Your task to perform on an android device: turn on showing notifications on the lock screen Image 0: 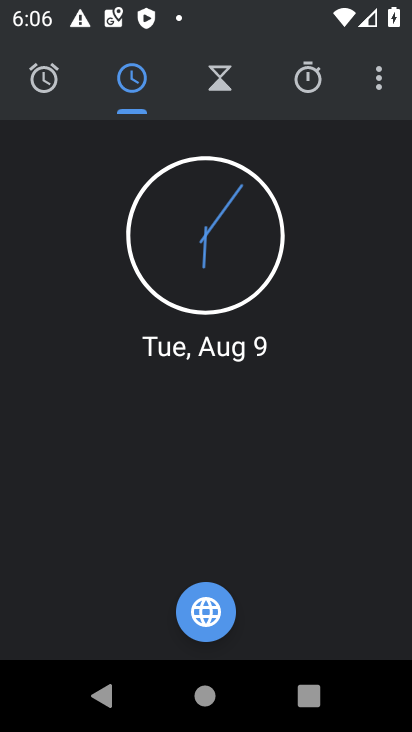
Step 0: drag from (257, 10) to (284, 133)
Your task to perform on an android device: turn on showing notifications on the lock screen Image 1: 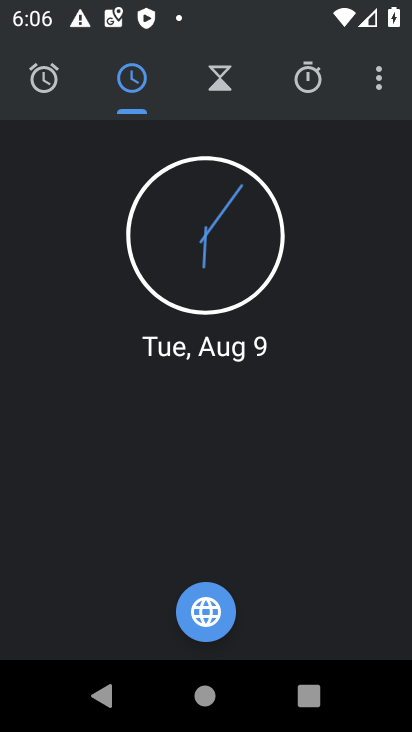
Step 1: click (206, 693)
Your task to perform on an android device: turn on showing notifications on the lock screen Image 2: 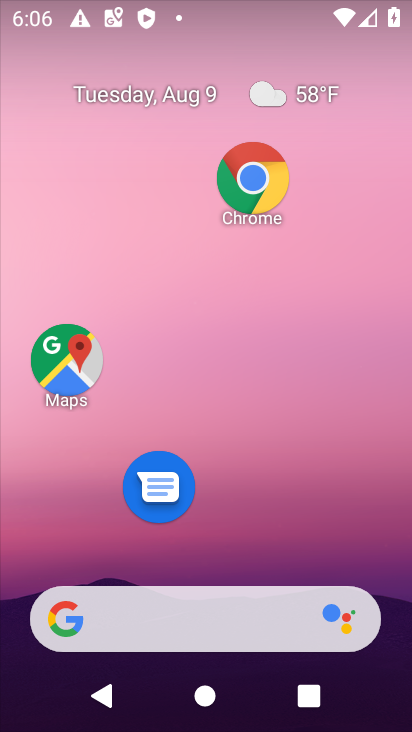
Step 2: drag from (206, 552) to (232, 103)
Your task to perform on an android device: turn on showing notifications on the lock screen Image 3: 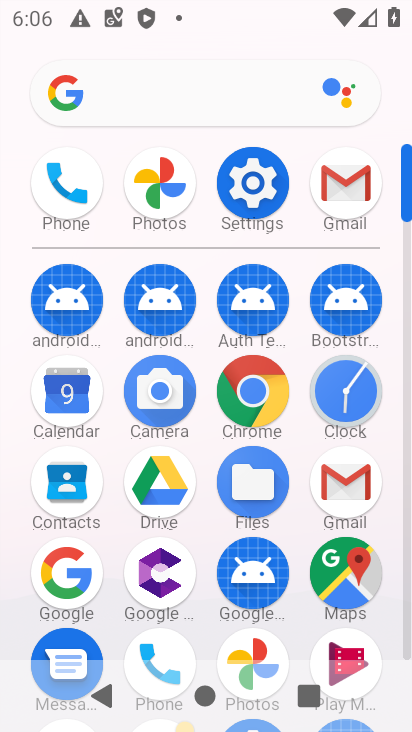
Step 3: click (261, 184)
Your task to perform on an android device: turn on showing notifications on the lock screen Image 4: 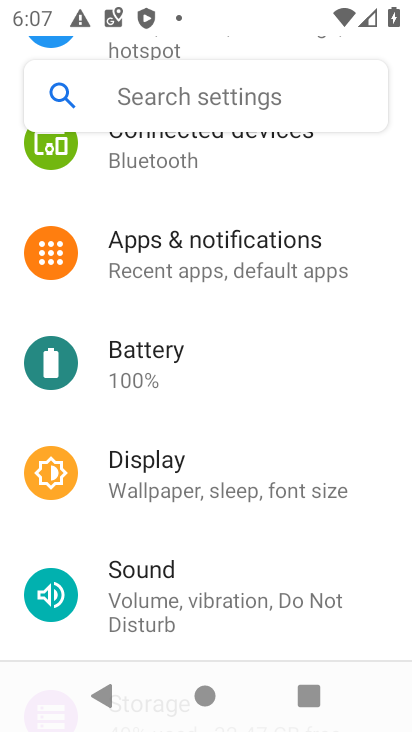
Step 4: click (253, 238)
Your task to perform on an android device: turn on showing notifications on the lock screen Image 5: 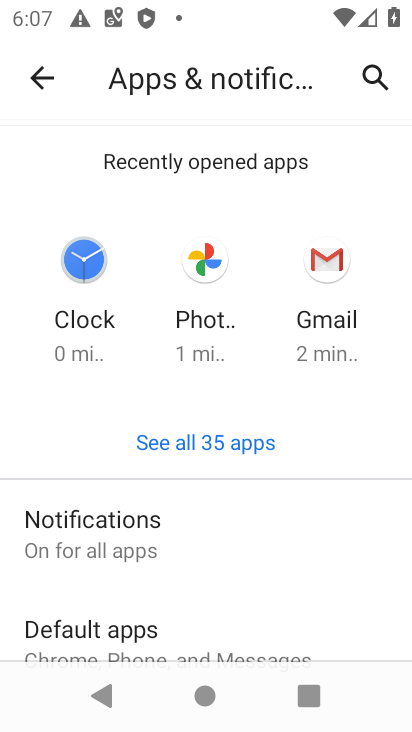
Step 5: drag from (172, 475) to (186, 202)
Your task to perform on an android device: turn on showing notifications on the lock screen Image 6: 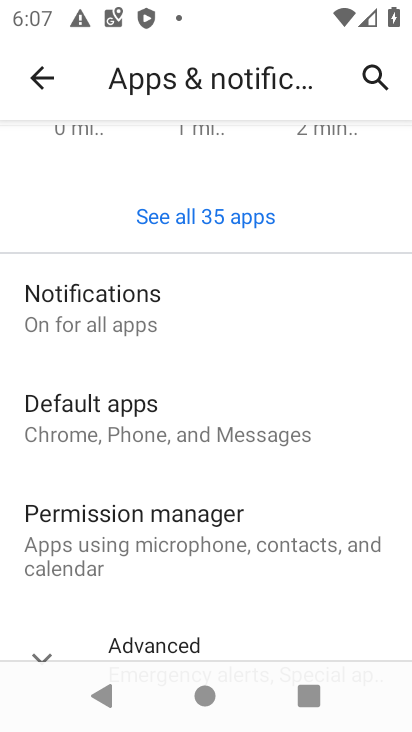
Step 6: drag from (322, 394) to (307, 230)
Your task to perform on an android device: turn on showing notifications on the lock screen Image 7: 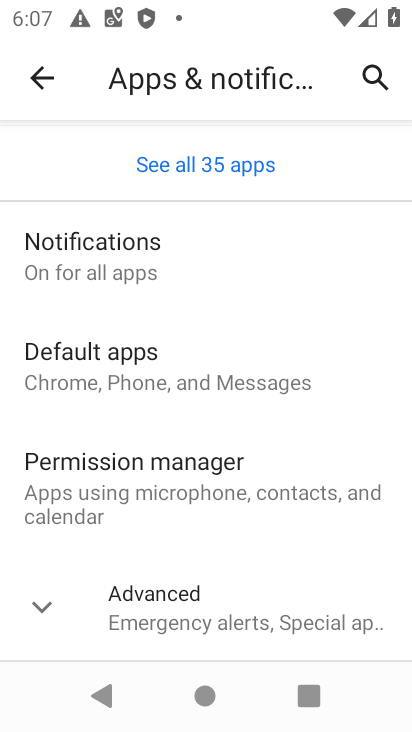
Step 7: click (195, 625)
Your task to perform on an android device: turn on showing notifications on the lock screen Image 8: 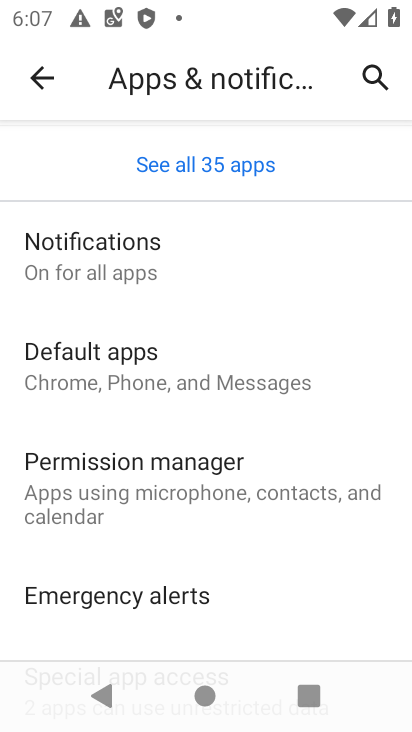
Step 8: drag from (230, 568) to (243, 385)
Your task to perform on an android device: turn on showing notifications on the lock screen Image 9: 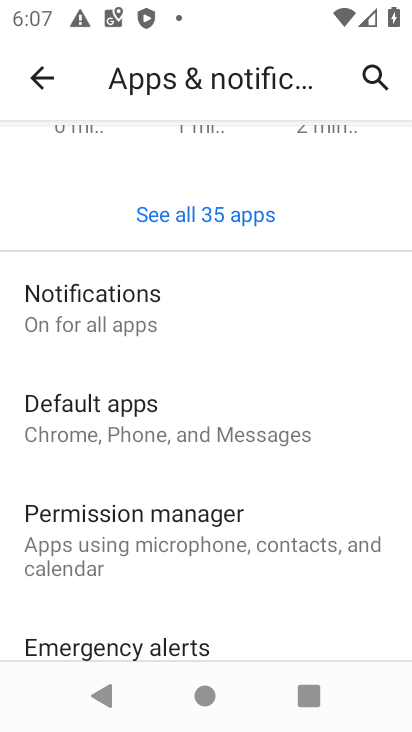
Step 9: drag from (277, 576) to (274, 274)
Your task to perform on an android device: turn on showing notifications on the lock screen Image 10: 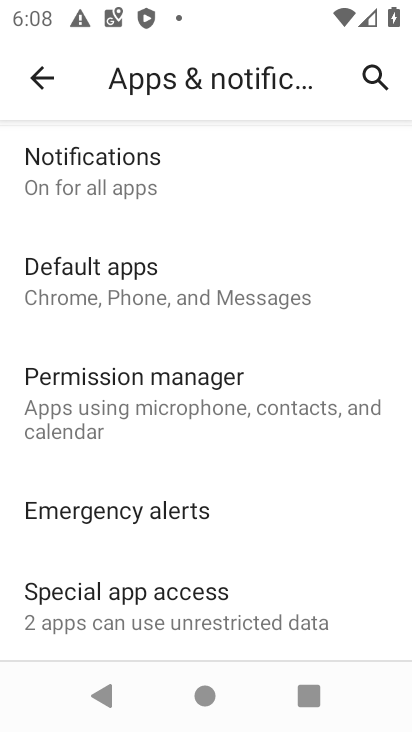
Step 10: click (84, 163)
Your task to perform on an android device: turn on showing notifications on the lock screen Image 11: 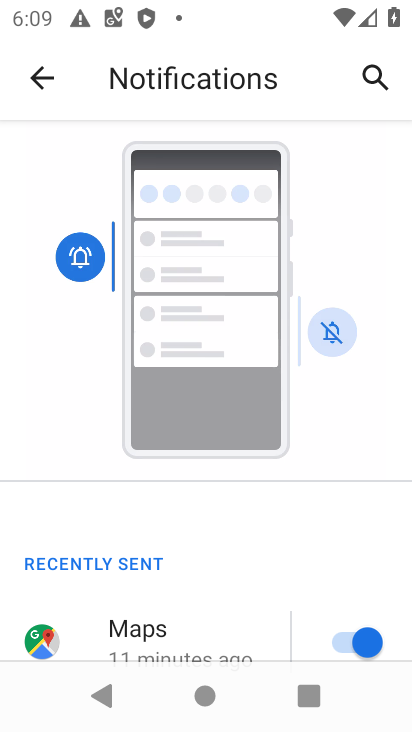
Step 11: drag from (337, 493) to (351, 216)
Your task to perform on an android device: turn on showing notifications on the lock screen Image 12: 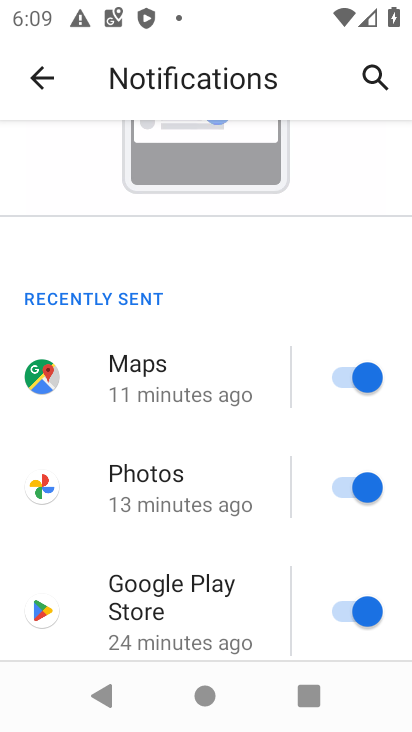
Step 12: click (37, 84)
Your task to perform on an android device: turn on showing notifications on the lock screen Image 13: 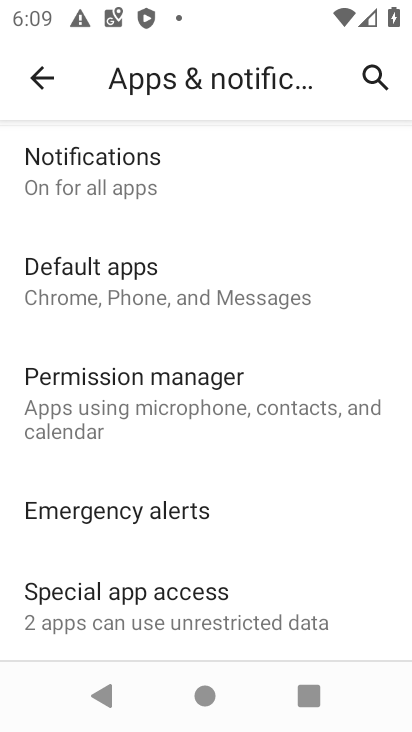
Step 13: click (221, 391)
Your task to perform on an android device: turn on showing notifications on the lock screen Image 14: 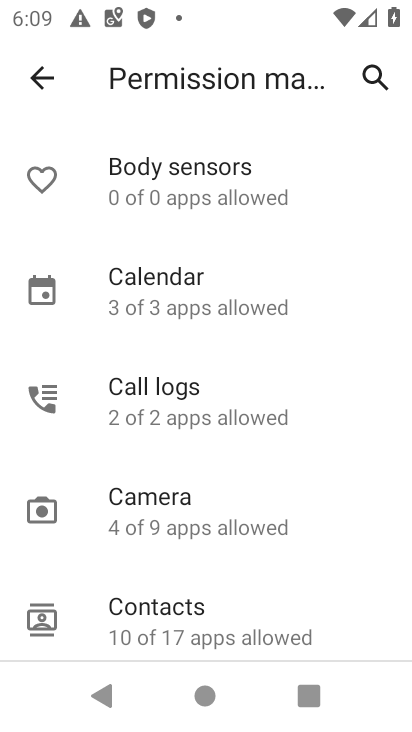
Step 14: click (50, 81)
Your task to perform on an android device: turn on showing notifications on the lock screen Image 15: 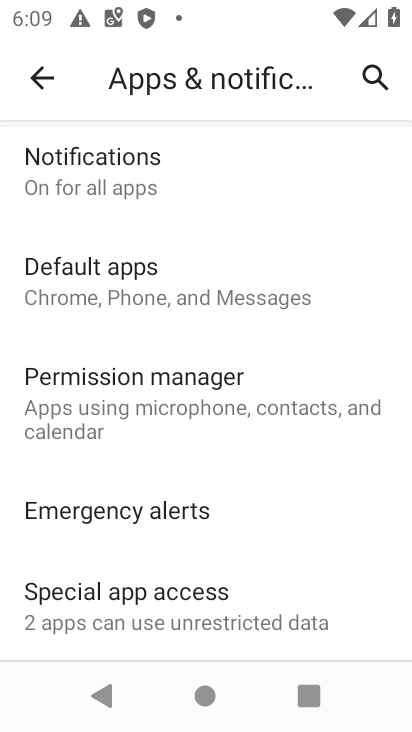
Step 15: task complete